Your task to perform on an android device: Show the shopping cart on amazon.com. Search for "usb-a" on amazon.com, select the first entry, add it to the cart, then select checkout. Image 0: 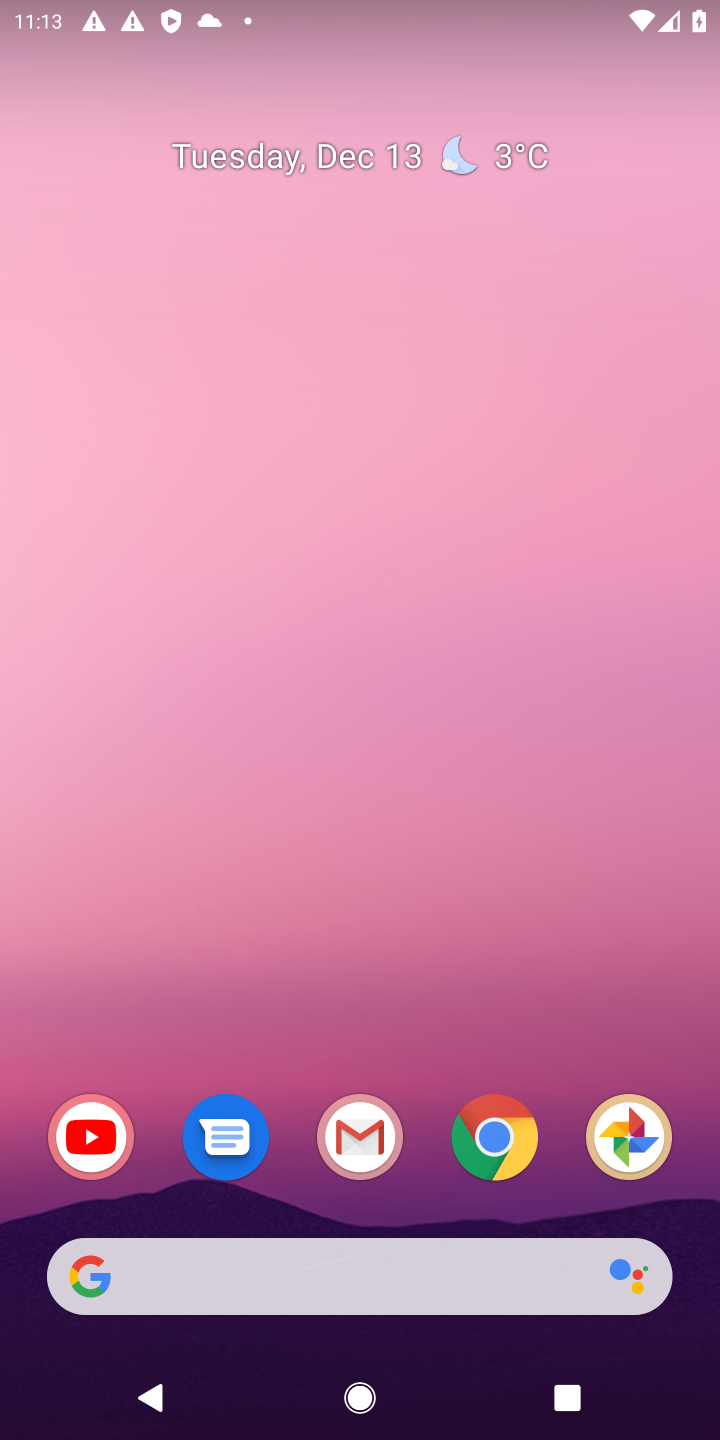
Step 0: click (488, 1112)
Your task to perform on an android device: Show the shopping cart on amazon.com. Search for "usb-a" on amazon.com, select the first entry, add it to the cart, then select checkout. Image 1: 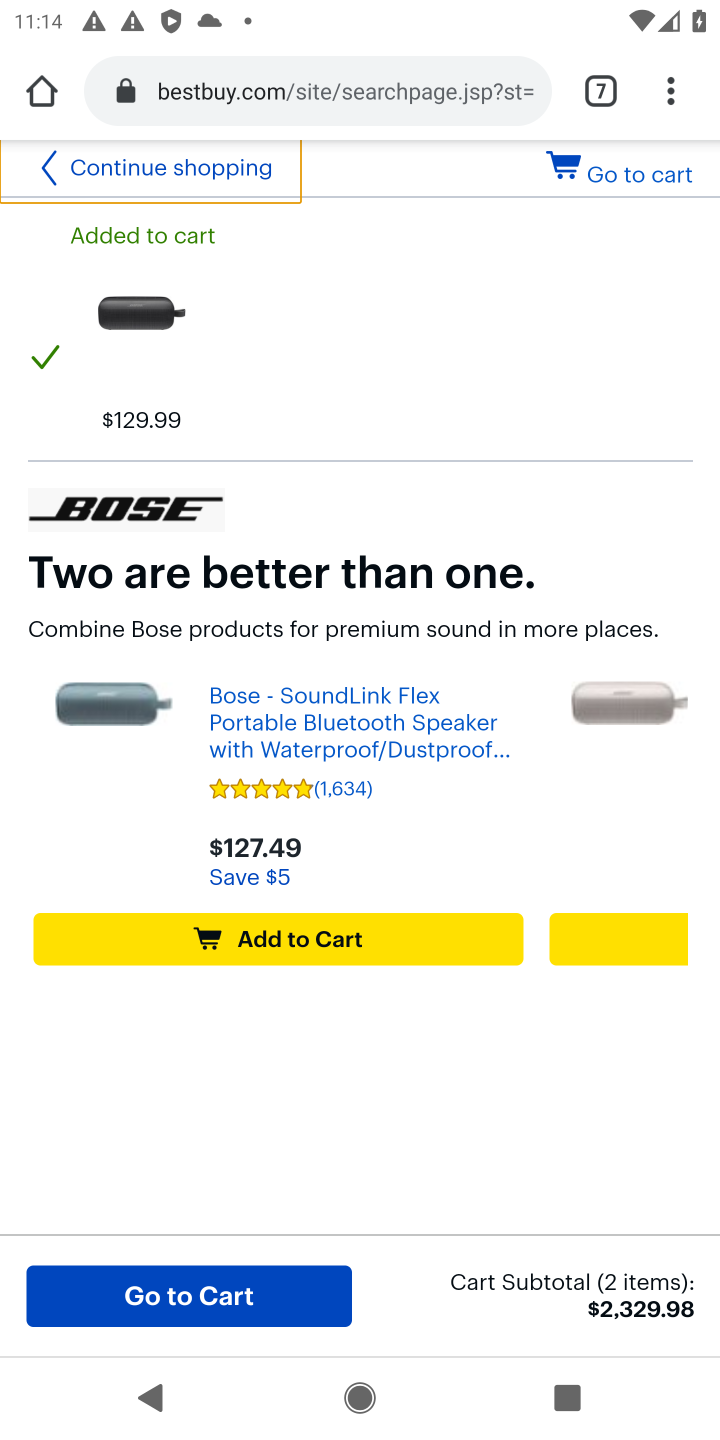
Step 1: click (589, 93)
Your task to perform on an android device: Show the shopping cart on amazon.com. Search for "usb-a" on amazon.com, select the first entry, add it to the cart, then select checkout. Image 2: 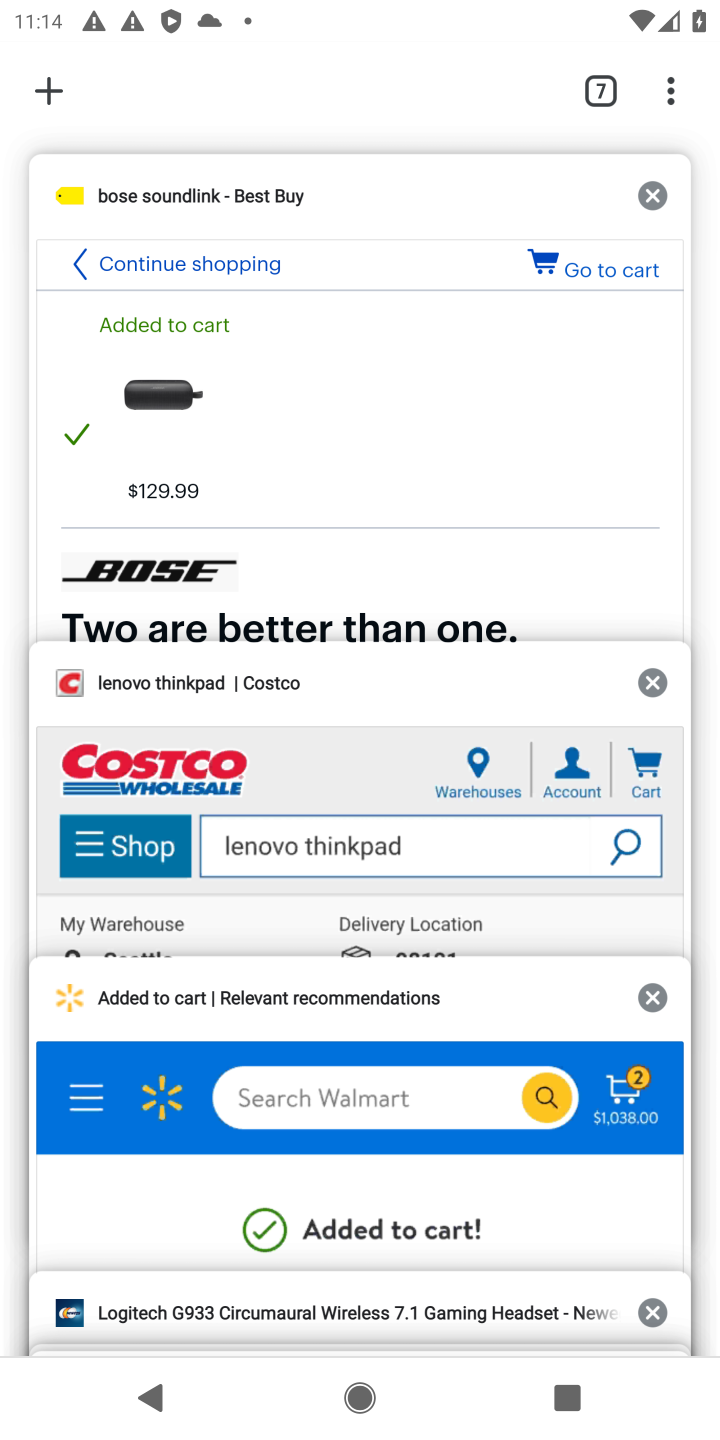
Step 2: drag from (222, 1203) to (252, 722)
Your task to perform on an android device: Show the shopping cart on amazon.com. Search for "usb-a" on amazon.com, select the first entry, add it to the cart, then select checkout. Image 3: 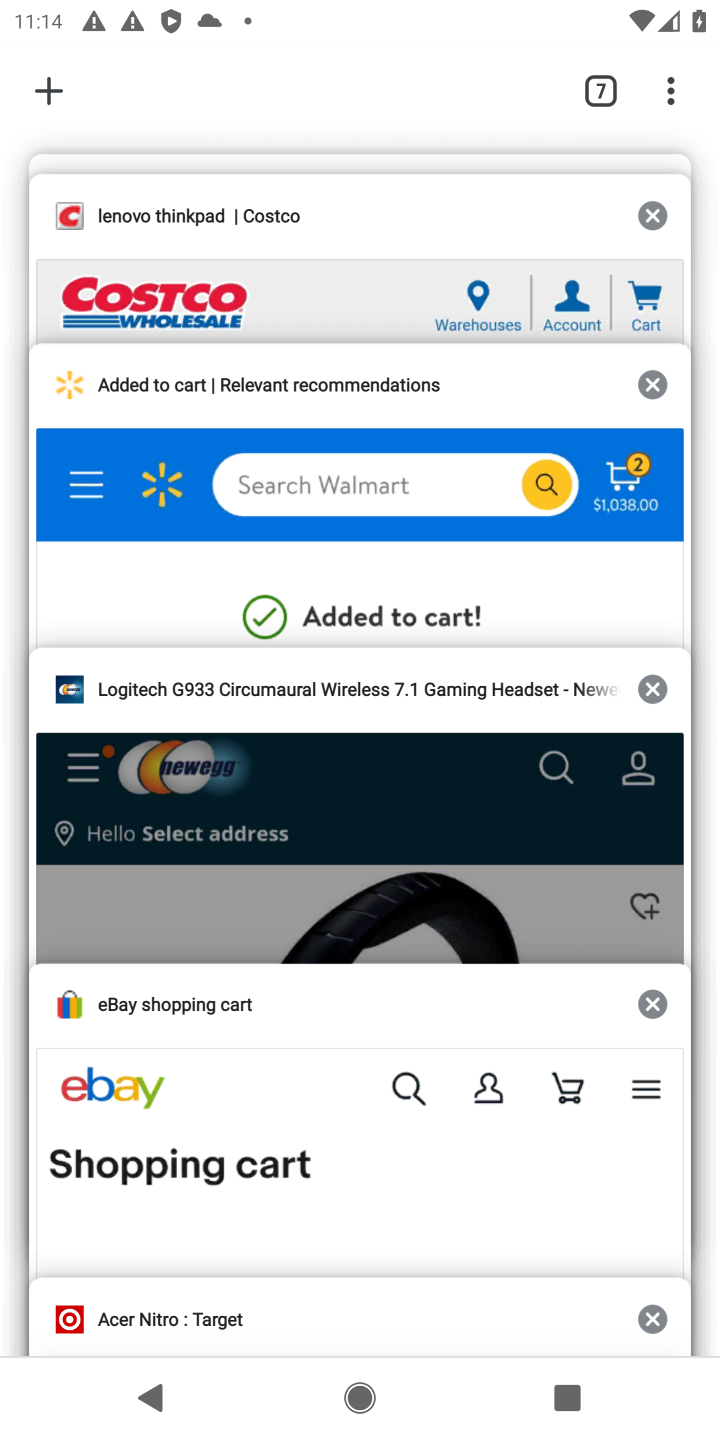
Step 3: drag from (286, 1120) to (328, 733)
Your task to perform on an android device: Show the shopping cart on amazon.com. Search for "usb-a" on amazon.com, select the first entry, add it to the cart, then select checkout. Image 4: 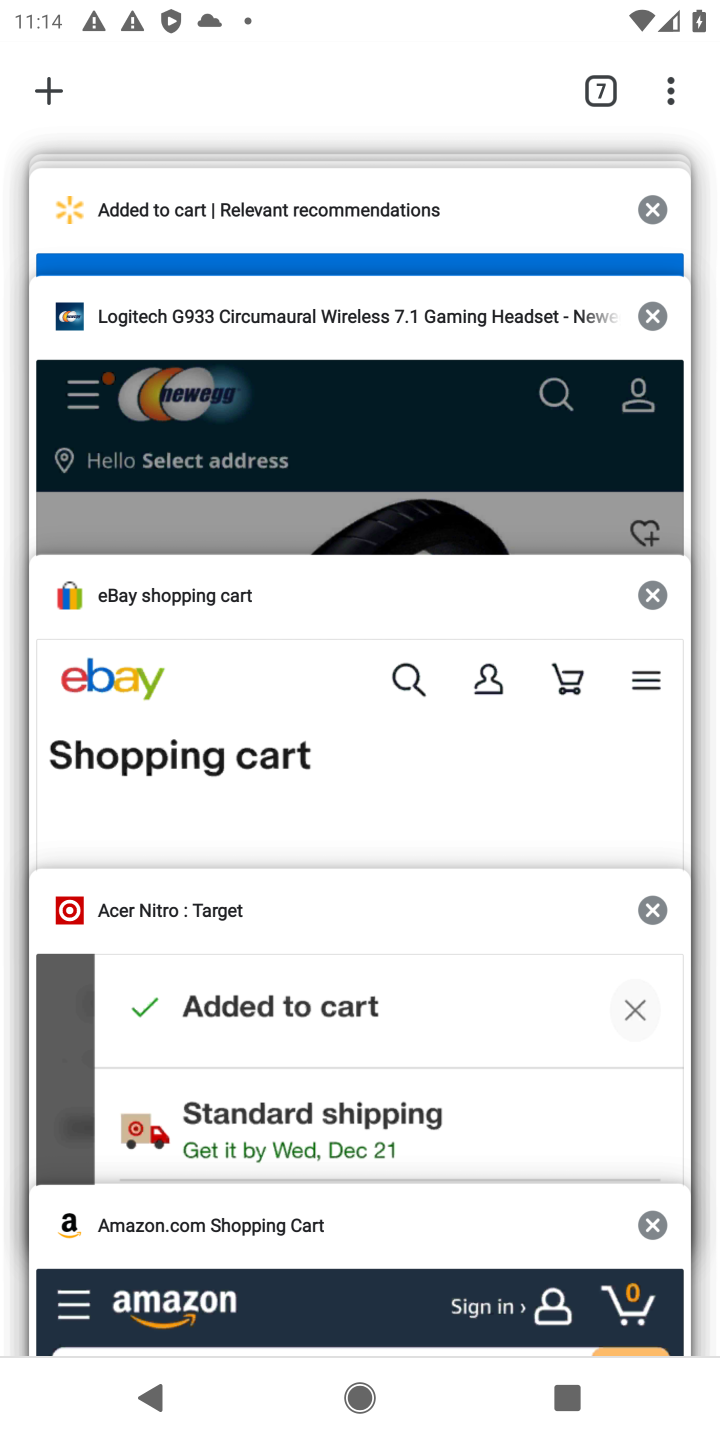
Step 4: click (337, 1294)
Your task to perform on an android device: Show the shopping cart on amazon.com. Search for "usb-a" on amazon.com, select the first entry, add it to the cart, then select checkout. Image 5: 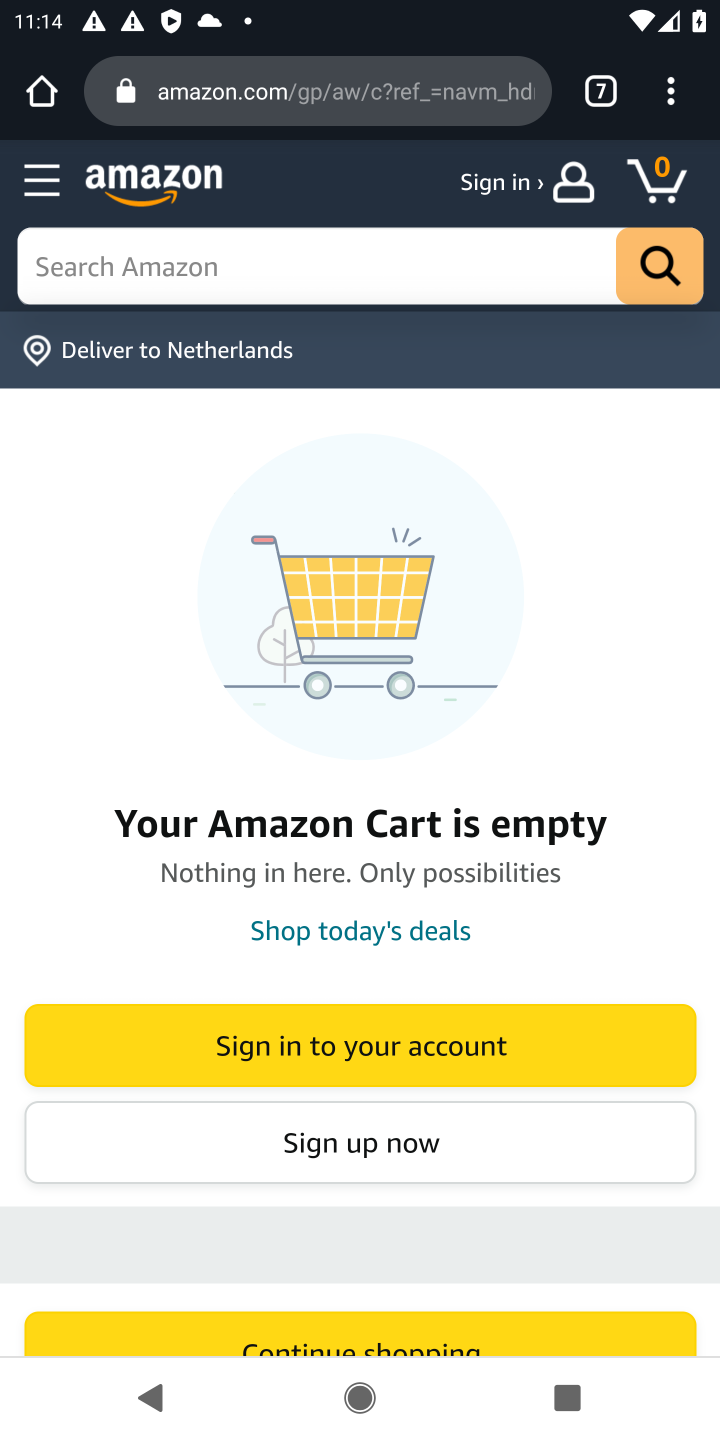
Step 5: click (376, 276)
Your task to perform on an android device: Show the shopping cart on amazon.com. Search for "usb-a" on amazon.com, select the first entry, add it to the cart, then select checkout. Image 6: 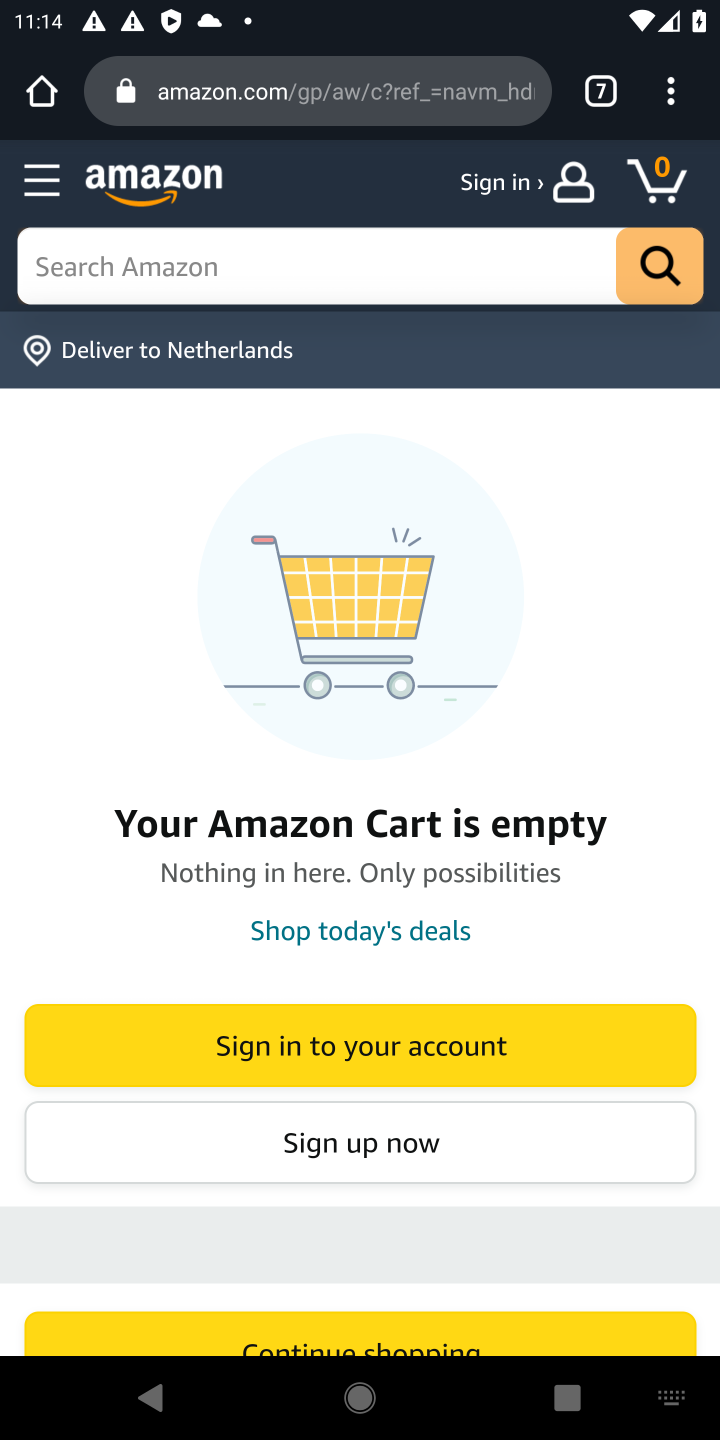
Step 6: type "usb-a"
Your task to perform on an android device: Show the shopping cart on amazon.com. Search for "usb-a" on amazon.com, select the first entry, add it to the cart, then select checkout. Image 7: 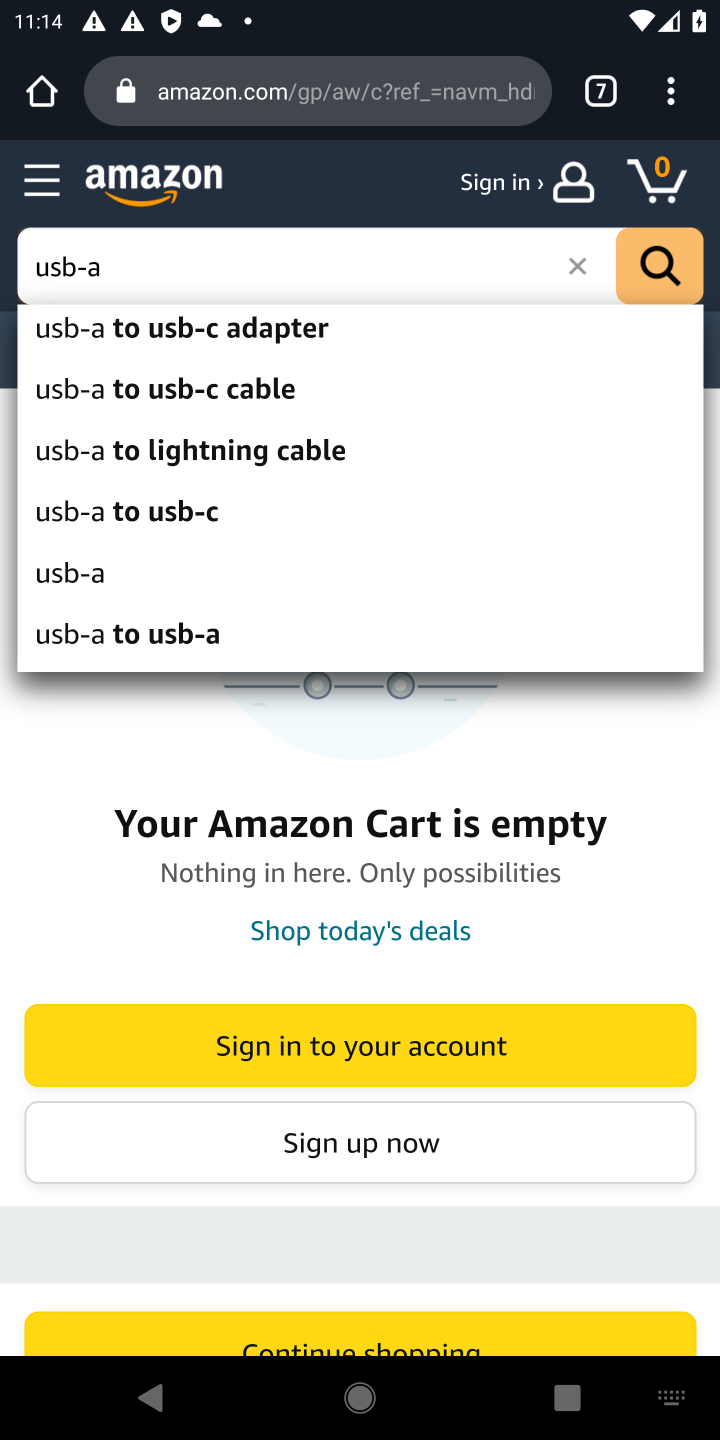
Step 7: click (86, 568)
Your task to perform on an android device: Show the shopping cart on amazon.com. Search for "usb-a" on amazon.com, select the first entry, add it to the cart, then select checkout. Image 8: 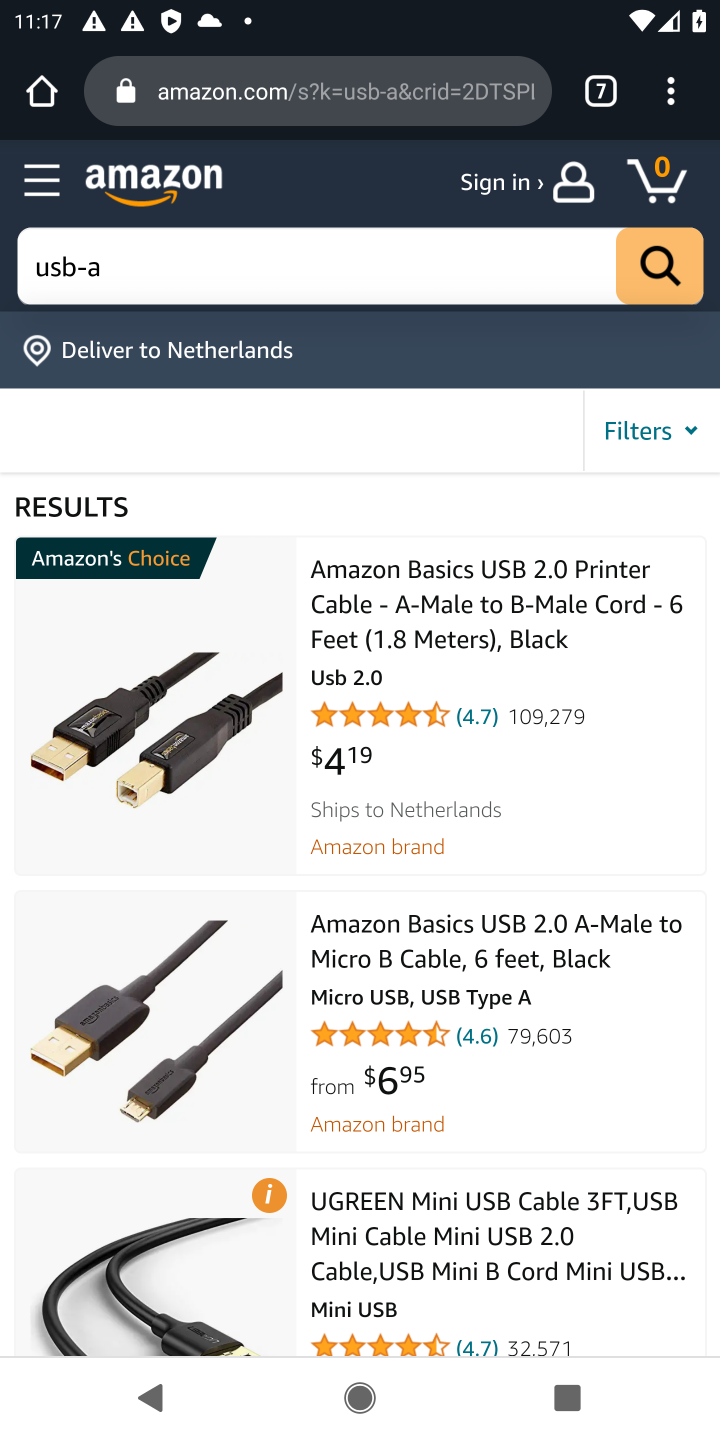
Step 8: click (465, 600)
Your task to perform on an android device: Show the shopping cart on amazon.com. Search for "usb-a" on amazon.com, select the first entry, add it to the cart, then select checkout. Image 9: 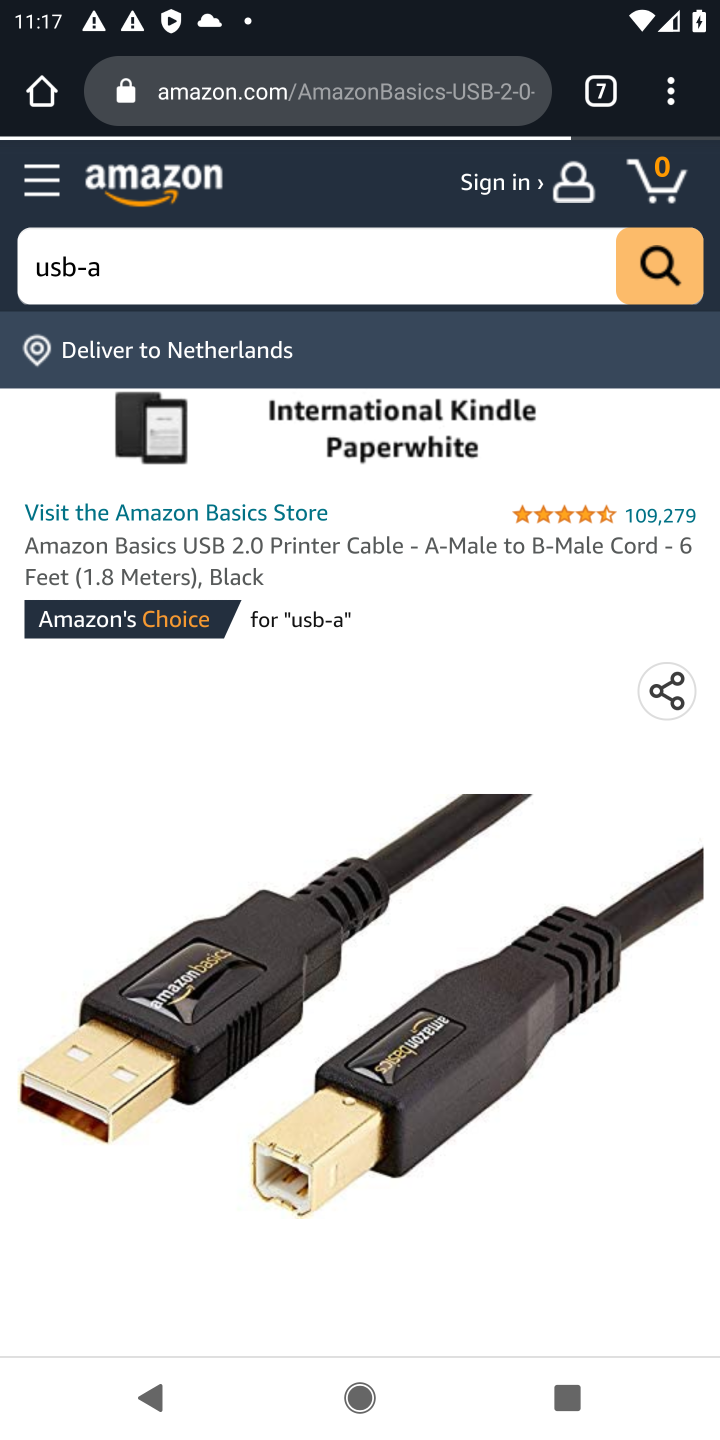
Step 9: drag from (451, 900) to (479, 560)
Your task to perform on an android device: Show the shopping cart on amazon.com. Search for "usb-a" on amazon.com, select the first entry, add it to the cart, then select checkout. Image 10: 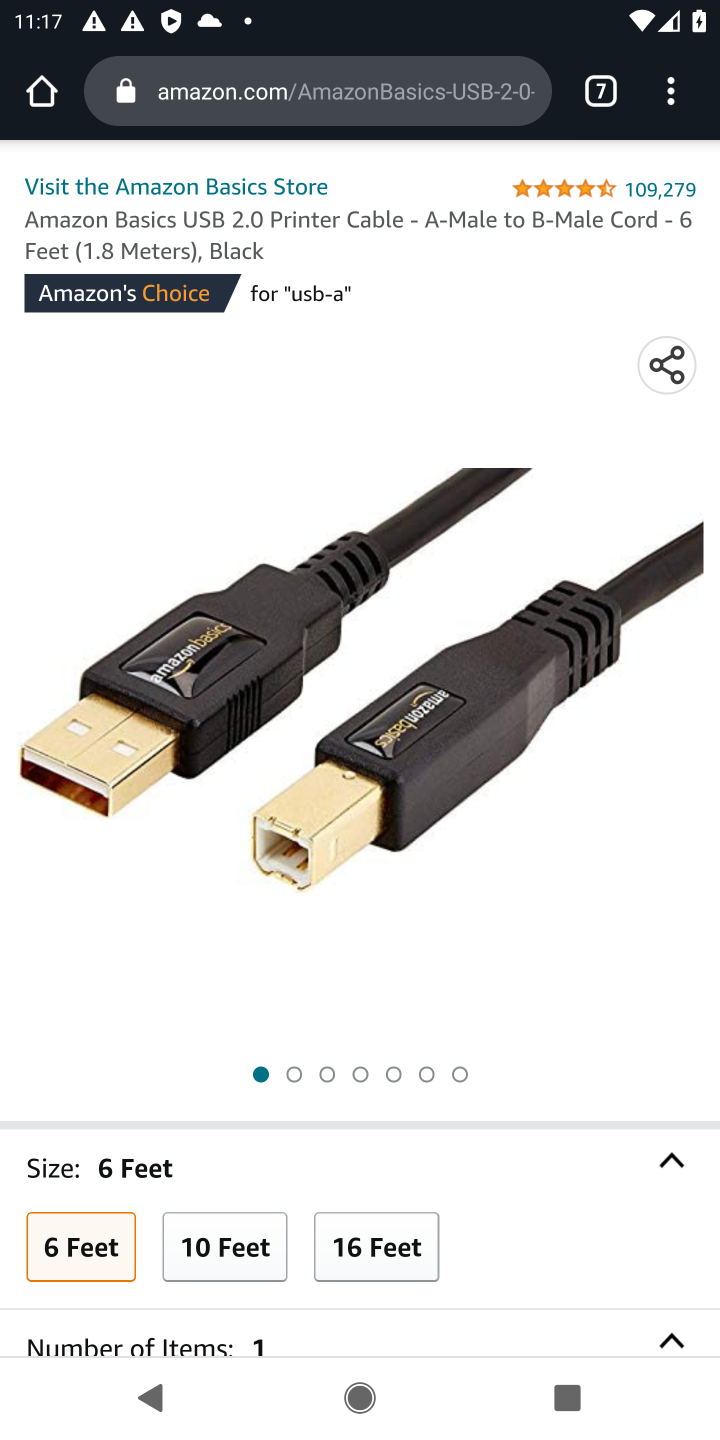
Step 10: drag from (271, 1304) to (442, 590)
Your task to perform on an android device: Show the shopping cart on amazon.com. Search for "usb-a" on amazon.com, select the first entry, add it to the cart, then select checkout. Image 11: 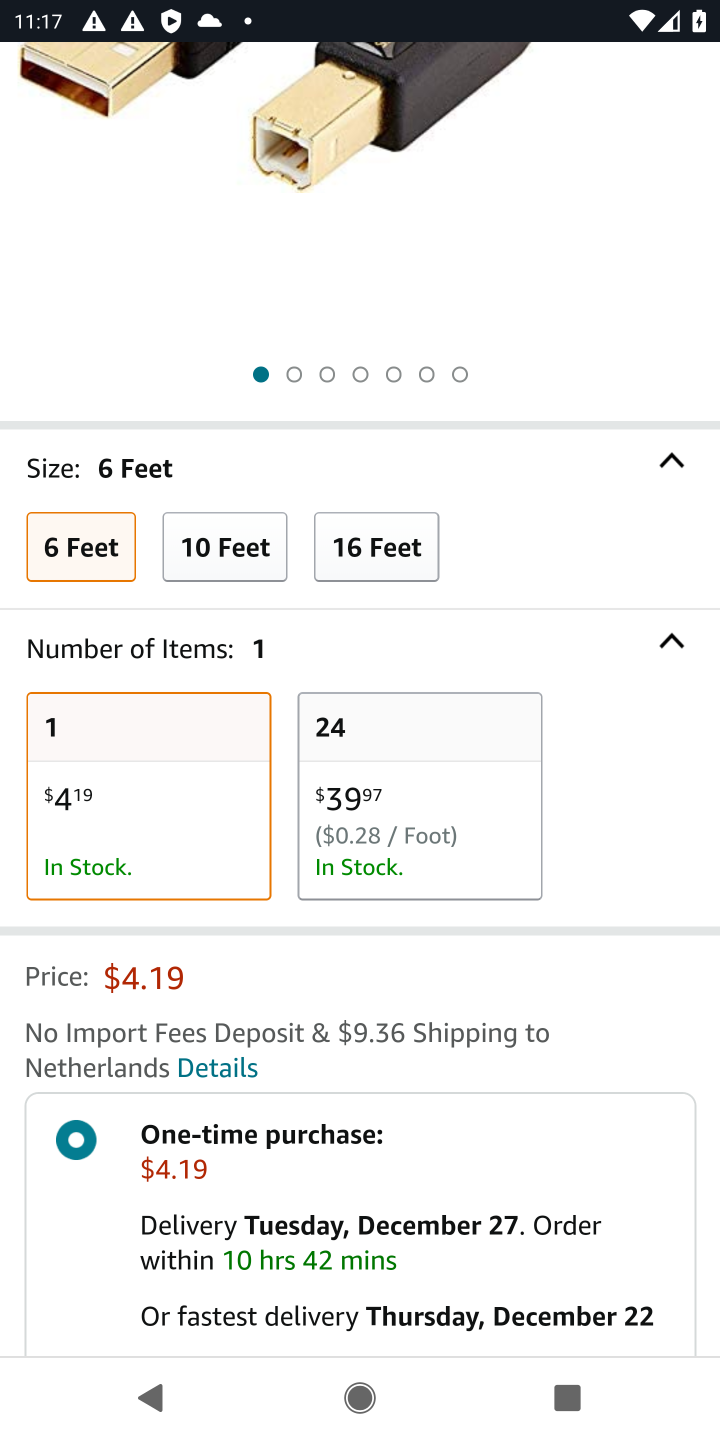
Step 11: drag from (362, 1220) to (463, 253)
Your task to perform on an android device: Show the shopping cart on amazon.com. Search for "usb-a" on amazon.com, select the first entry, add it to the cart, then select checkout. Image 12: 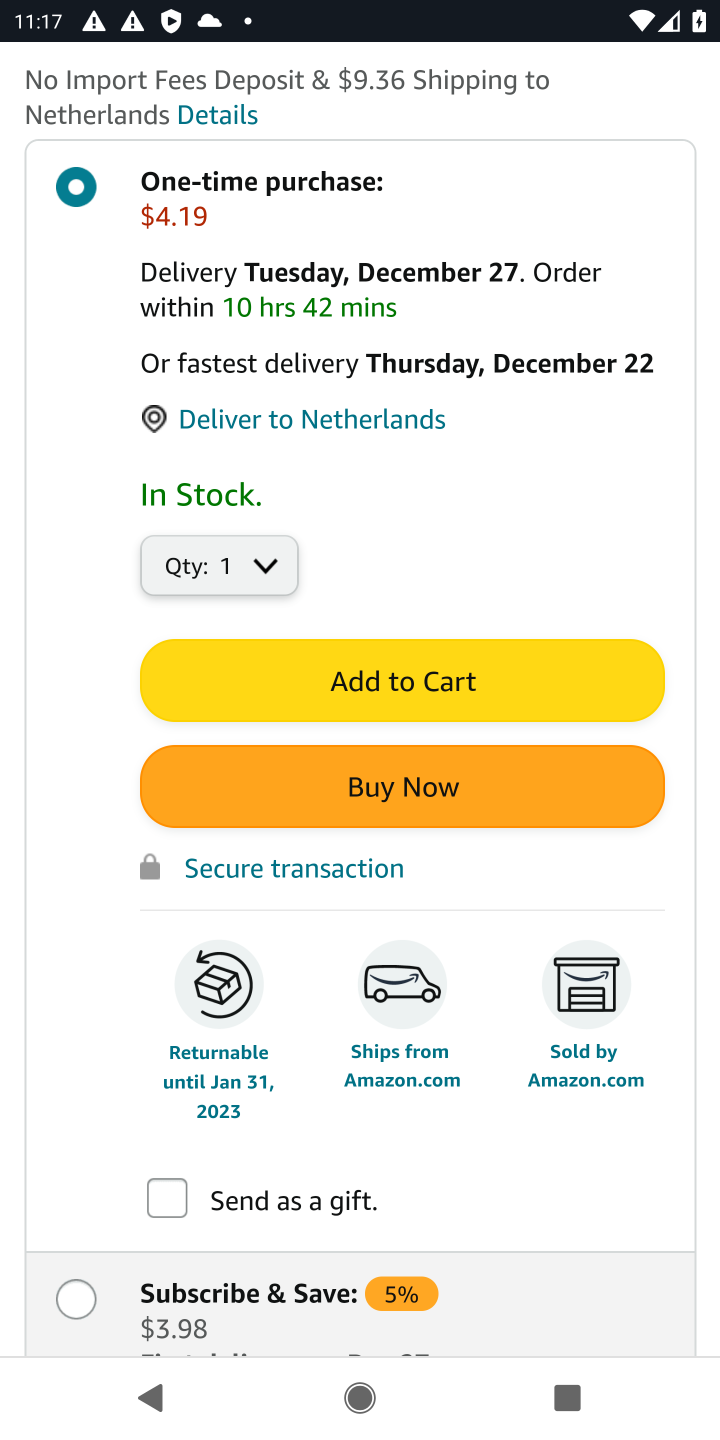
Step 12: click (447, 682)
Your task to perform on an android device: Show the shopping cart on amazon.com. Search for "usb-a" on amazon.com, select the first entry, add it to the cart, then select checkout. Image 13: 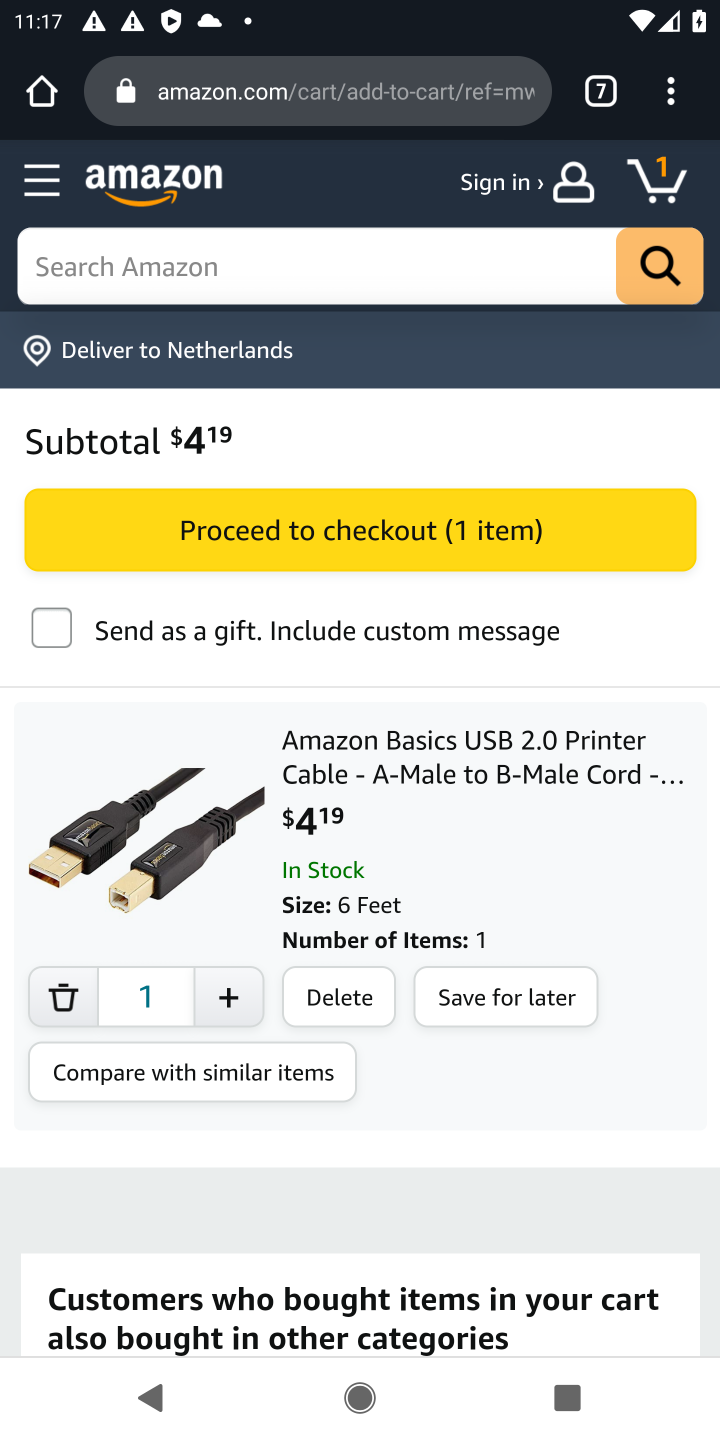
Step 13: task complete